Your task to perform on an android device: Go to Google Image 0: 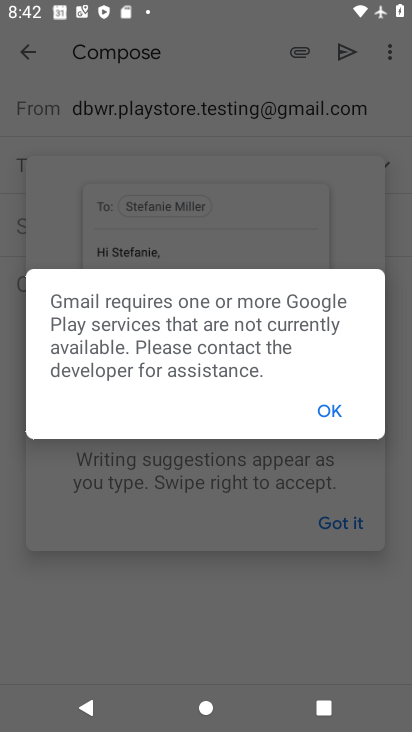
Step 0: press home button
Your task to perform on an android device: Go to Google Image 1: 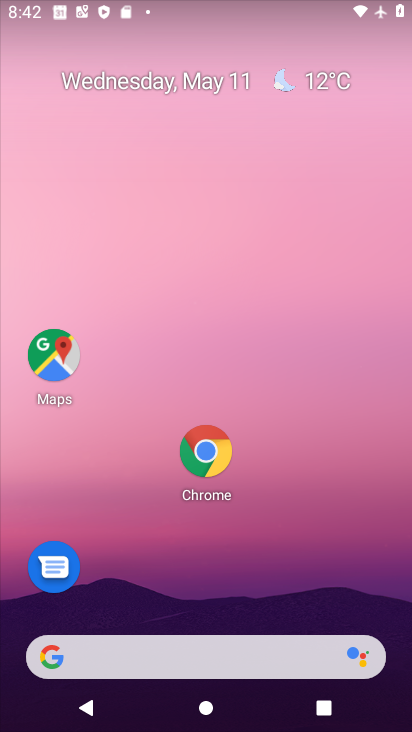
Step 1: drag from (190, 670) to (328, 187)
Your task to perform on an android device: Go to Google Image 2: 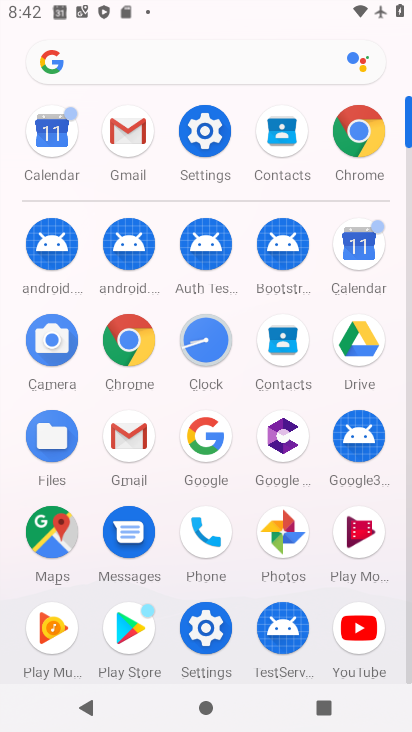
Step 2: click (201, 432)
Your task to perform on an android device: Go to Google Image 3: 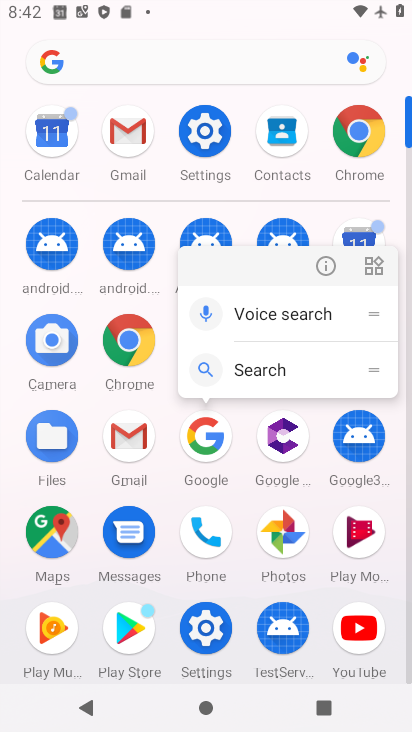
Step 3: click (216, 435)
Your task to perform on an android device: Go to Google Image 4: 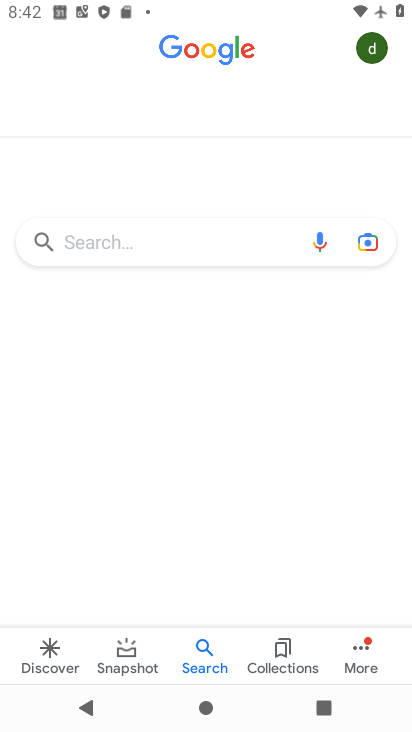
Step 4: task complete